Your task to perform on an android device: turn off airplane mode Image 0: 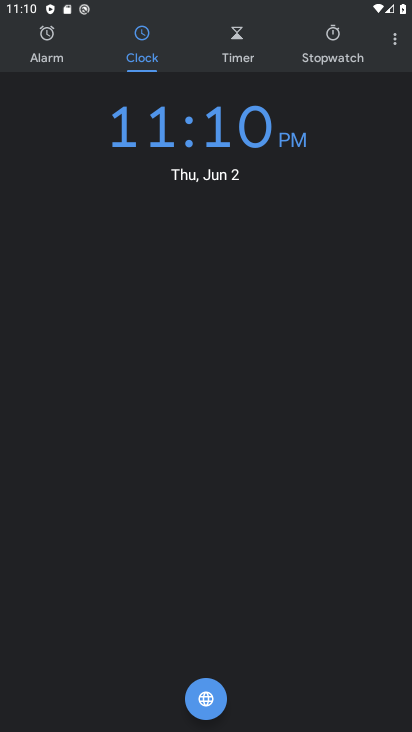
Step 0: press home button
Your task to perform on an android device: turn off airplane mode Image 1: 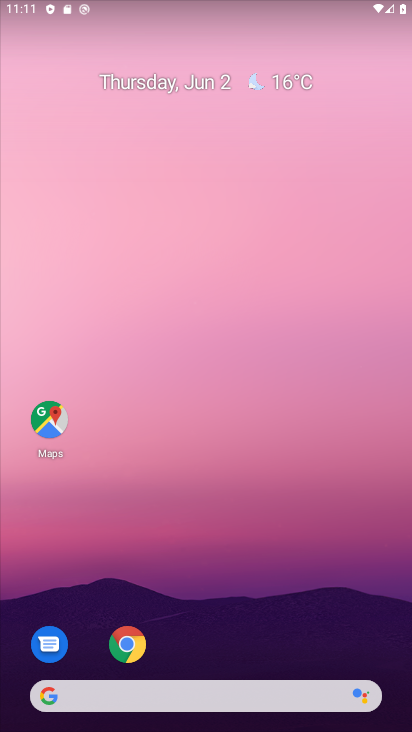
Step 1: drag from (189, 507) to (240, 283)
Your task to perform on an android device: turn off airplane mode Image 2: 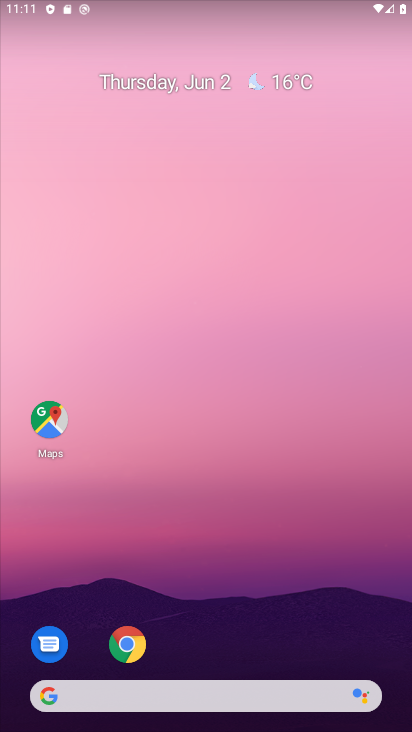
Step 2: drag from (227, 630) to (285, 186)
Your task to perform on an android device: turn off airplane mode Image 3: 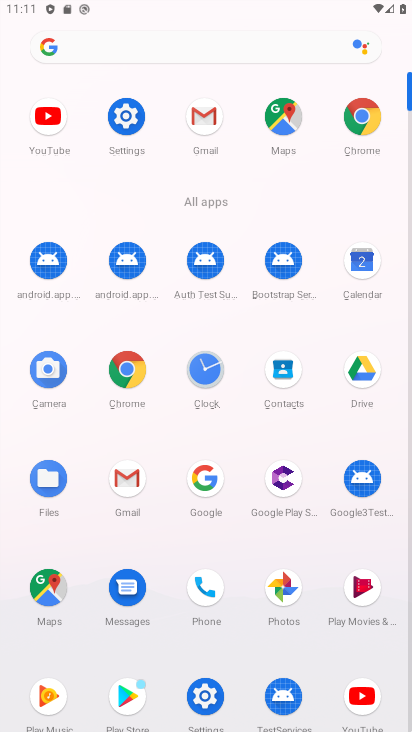
Step 3: click (122, 120)
Your task to perform on an android device: turn off airplane mode Image 4: 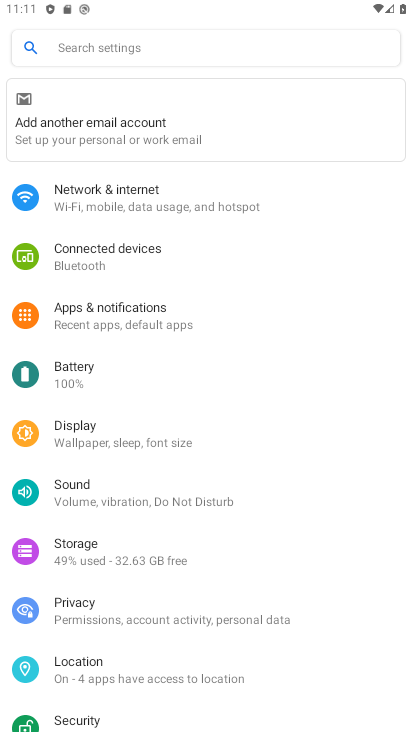
Step 4: click (126, 202)
Your task to perform on an android device: turn off airplane mode Image 5: 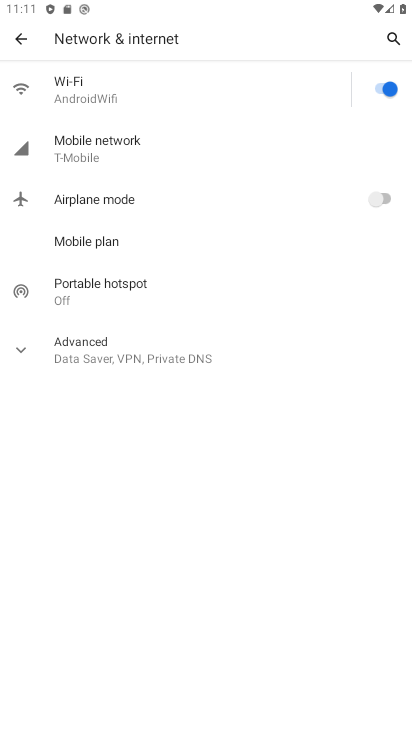
Step 5: task complete